Your task to perform on an android device: turn off smart reply in the gmail app Image 0: 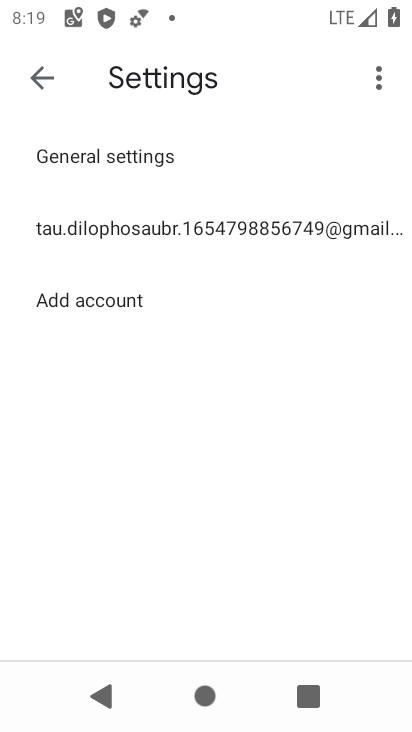
Step 0: press back button
Your task to perform on an android device: turn off smart reply in the gmail app Image 1: 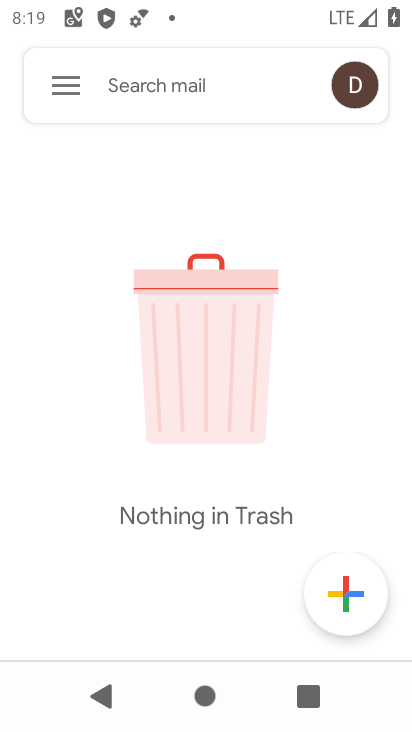
Step 1: press back button
Your task to perform on an android device: turn off smart reply in the gmail app Image 2: 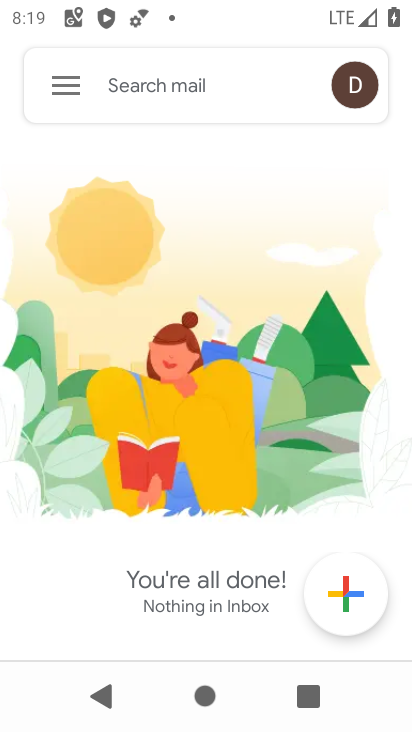
Step 2: press back button
Your task to perform on an android device: turn off smart reply in the gmail app Image 3: 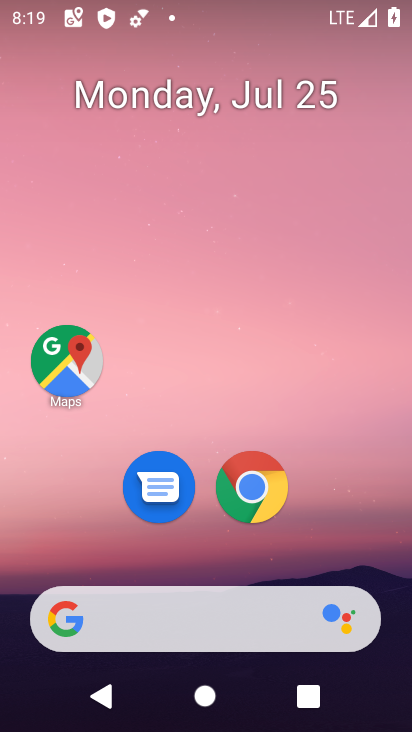
Step 3: drag from (182, 545) to (276, 0)
Your task to perform on an android device: turn off smart reply in the gmail app Image 4: 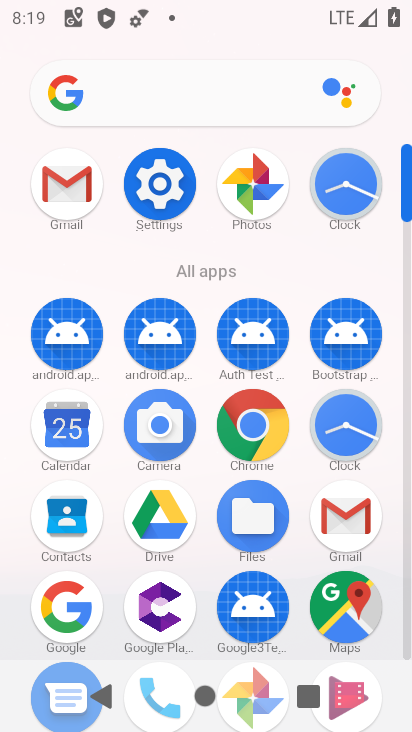
Step 4: click (68, 193)
Your task to perform on an android device: turn off smart reply in the gmail app Image 5: 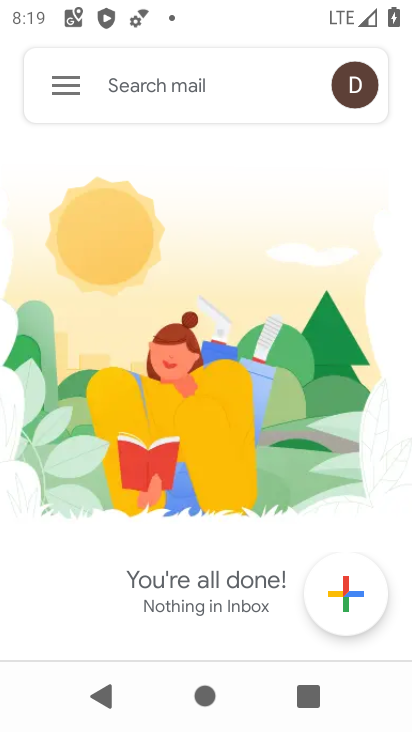
Step 5: click (59, 77)
Your task to perform on an android device: turn off smart reply in the gmail app Image 6: 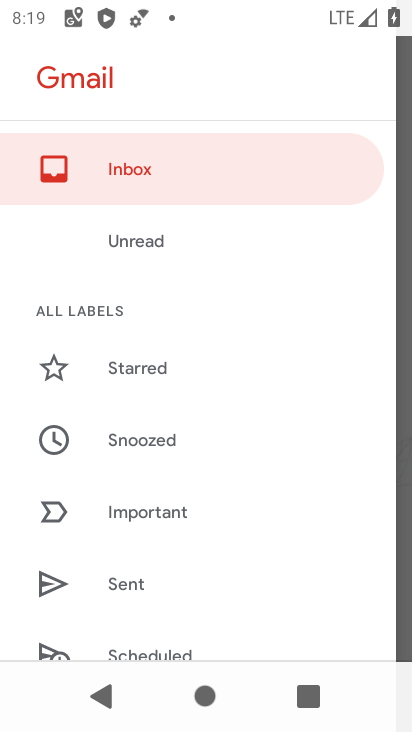
Step 6: drag from (165, 610) to (266, 70)
Your task to perform on an android device: turn off smart reply in the gmail app Image 7: 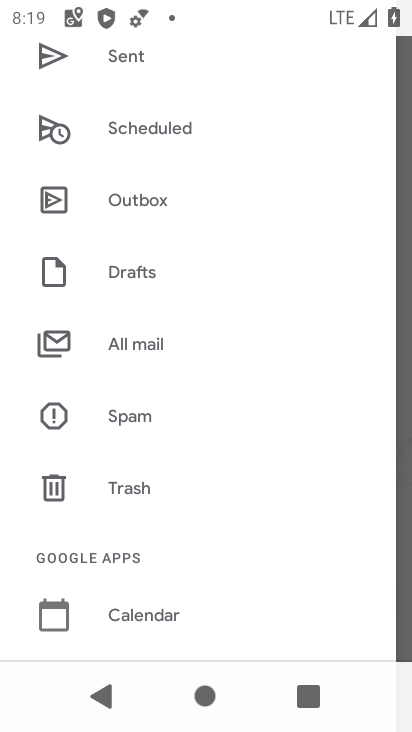
Step 7: drag from (178, 565) to (257, 21)
Your task to perform on an android device: turn off smart reply in the gmail app Image 8: 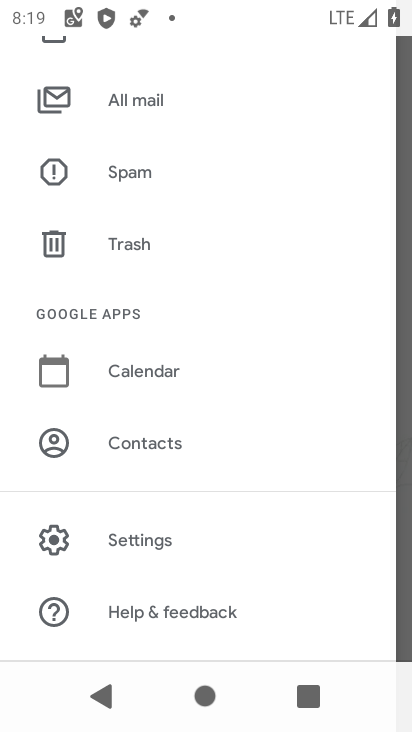
Step 8: click (142, 542)
Your task to perform on an android device: turn off smart reply in the gmail app Image 9: 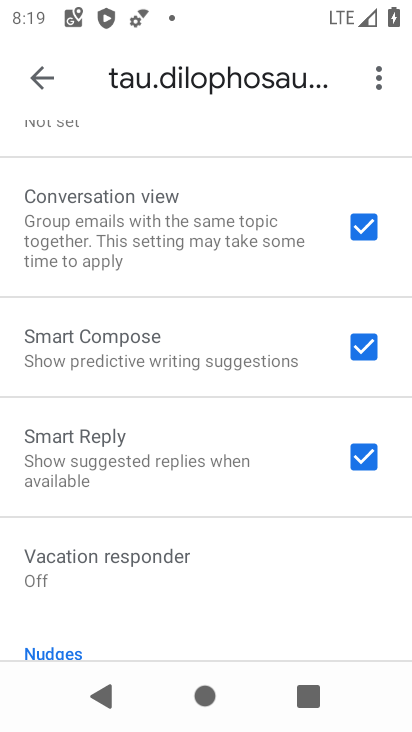
Step 9: click (368, 450)
Your task to perform on an android device: turn off smart reply in the gmail app Image 10: 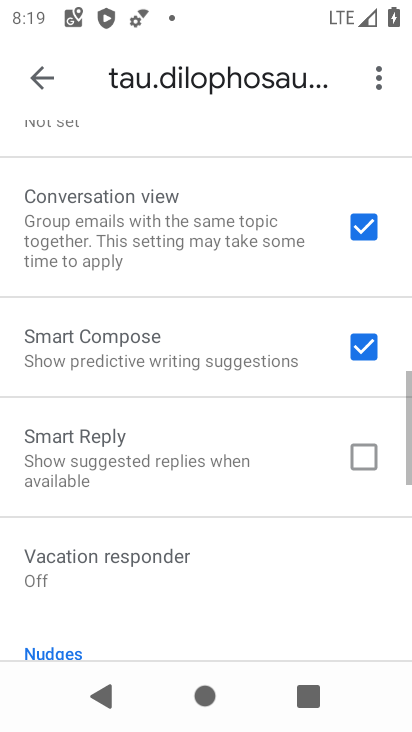
Step 10: task complete